Your task to perform on an android device: Open sound settings Image 0: 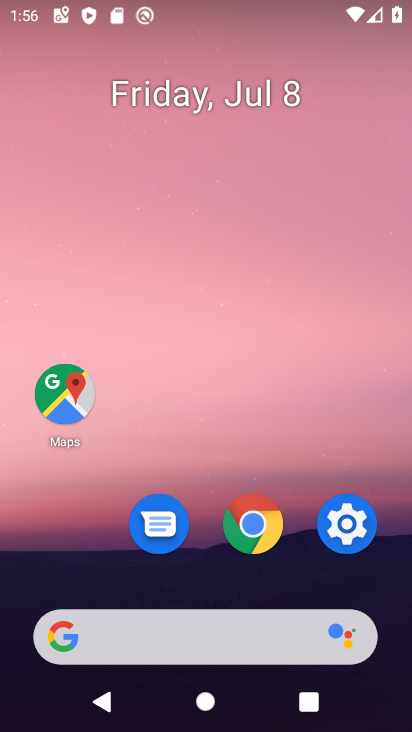
Step 0: click (328, 538)
Your task to perform on an android device: Open sound settings Image 1: 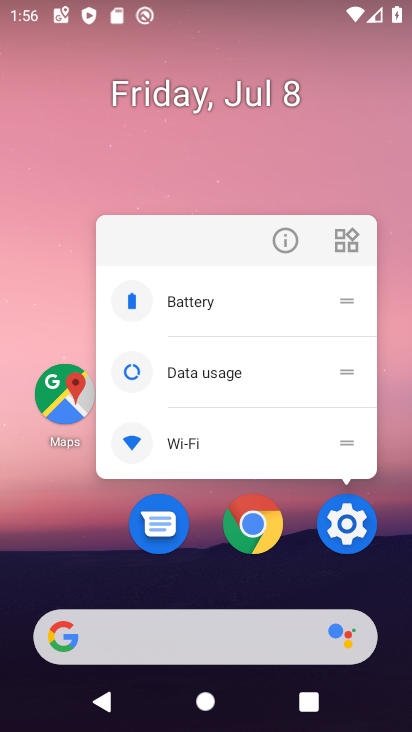
Step 1: click (337, 531)
Your task to perform on an android device: Open sound settings Image 2: 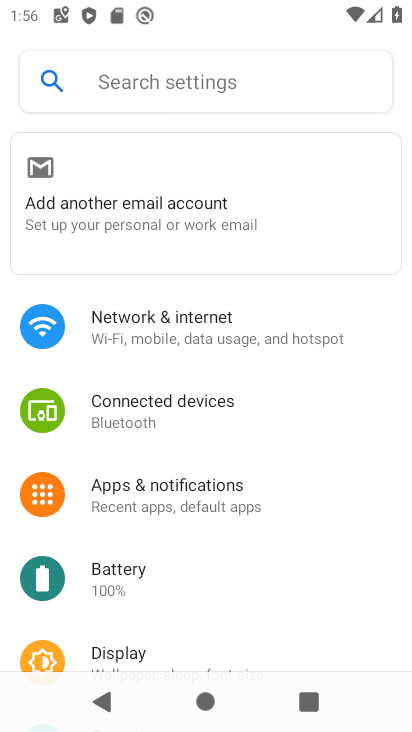
Step 2: drag from (233, 536) to (217, 382)
Your task to perform on an android device: Open sound settings Image 3: 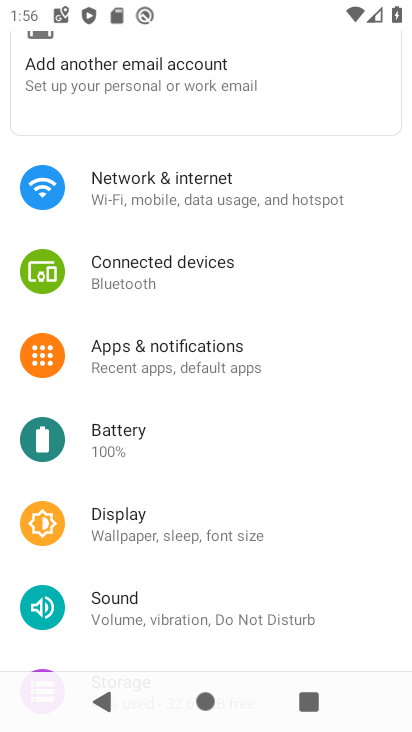
Step 3: click (135, 597)
Your task to perform on an android device: Open sound settings Image 4: 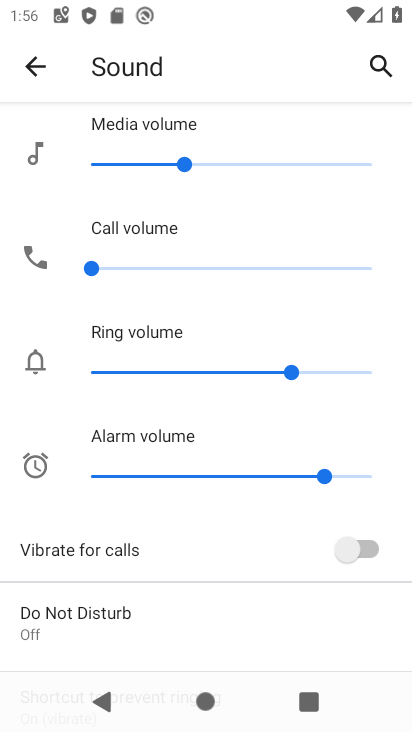
Step 4: task complete